Your task to perform on an android device: open app "Spotify: Music and Podcasts" (install if not already installed), go to login, and select forgot password Image 0: 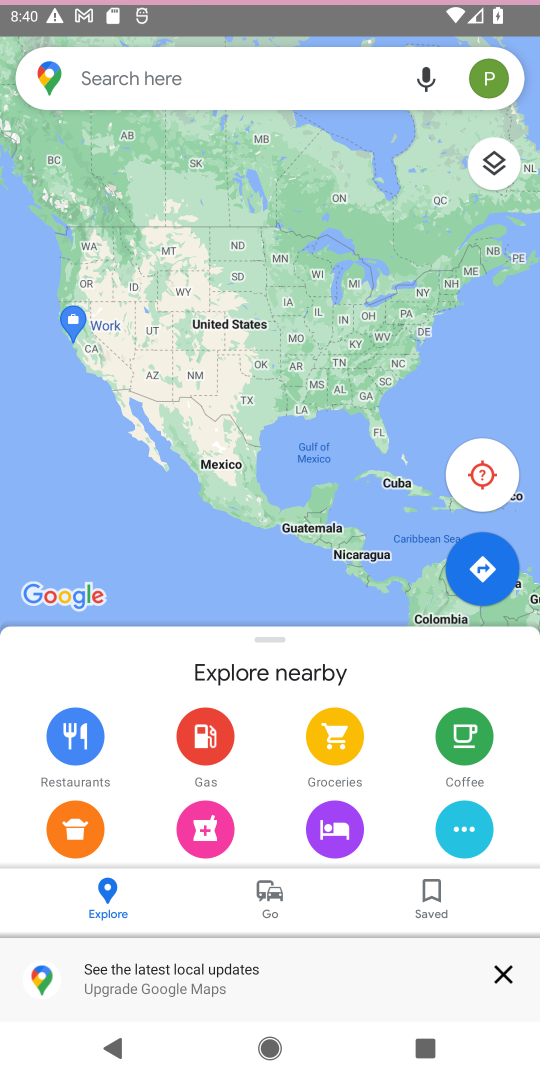
Step 0: press home button
Your task to perform on an android device: open app "Spotify: Music and Podcasts" (install if not already installed), go to login, and select forgot password Image 1: 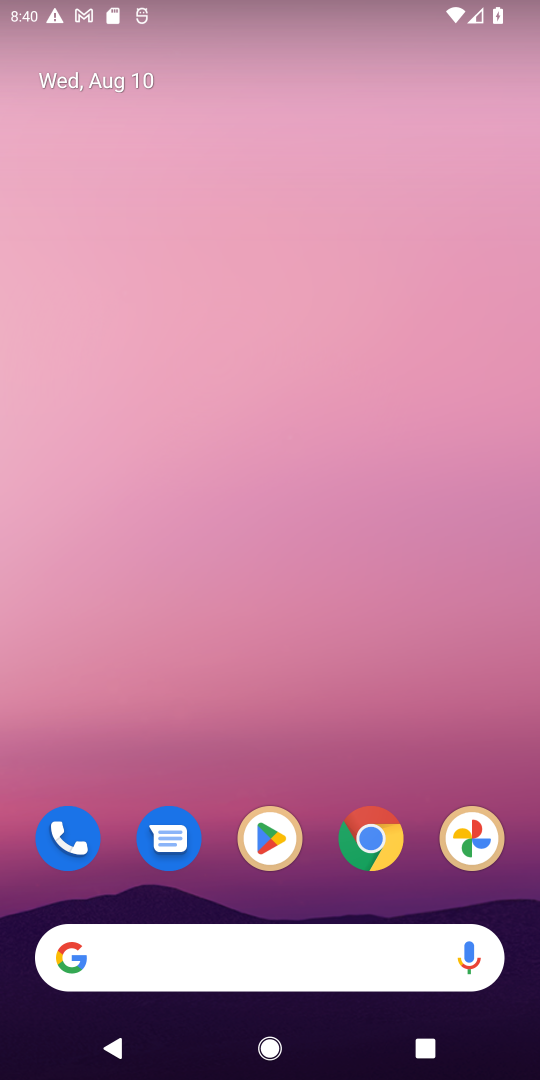
Step 1: click (268, 830)
Your task to perform on an android device: open app "Spotify: Music and Podcasts" (install if not already installed), go to login, and select forgot password Image 2: 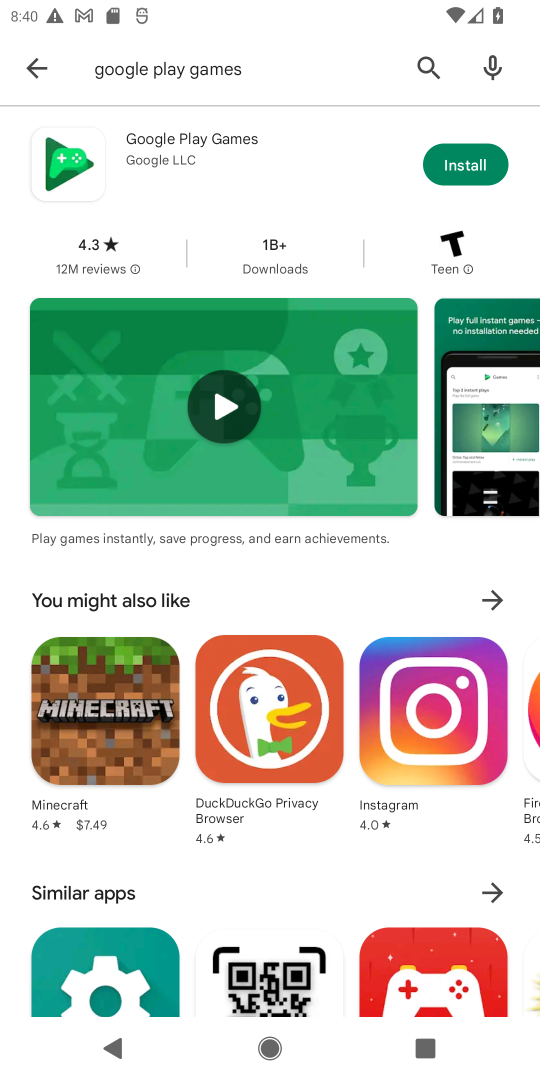
Step 2: click (420, 59)
Your task to perform on an android device: open app "Spotify: Music and Podcasts" (install if not already installed), go to login, and select forgot password Image 3: 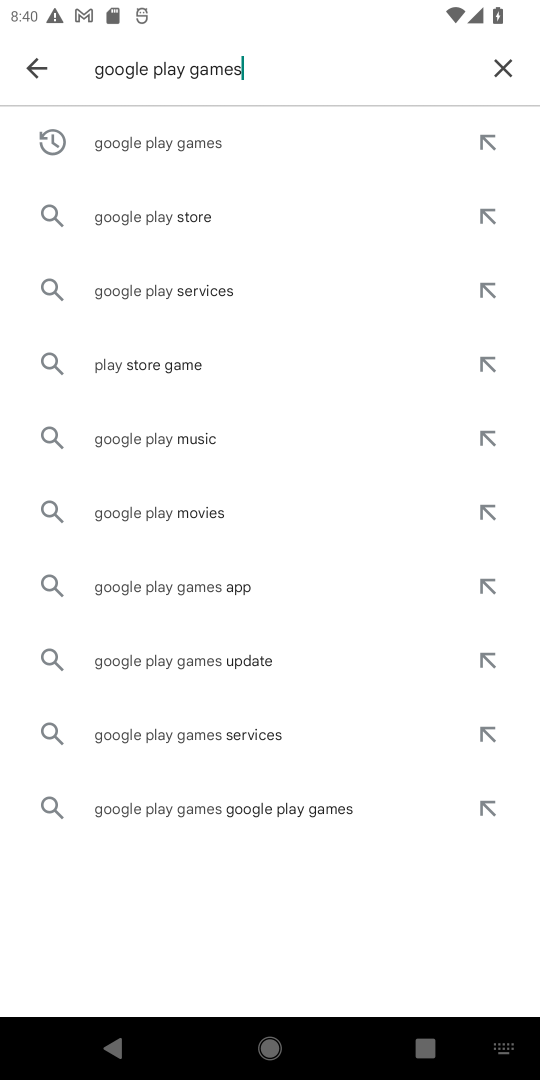
Step 3: click (513, 60)
Your task to perform on an android device: open app "Spotify: Music and Podcasts" (install if not already installed), go to login, and select forgot password Image 4: 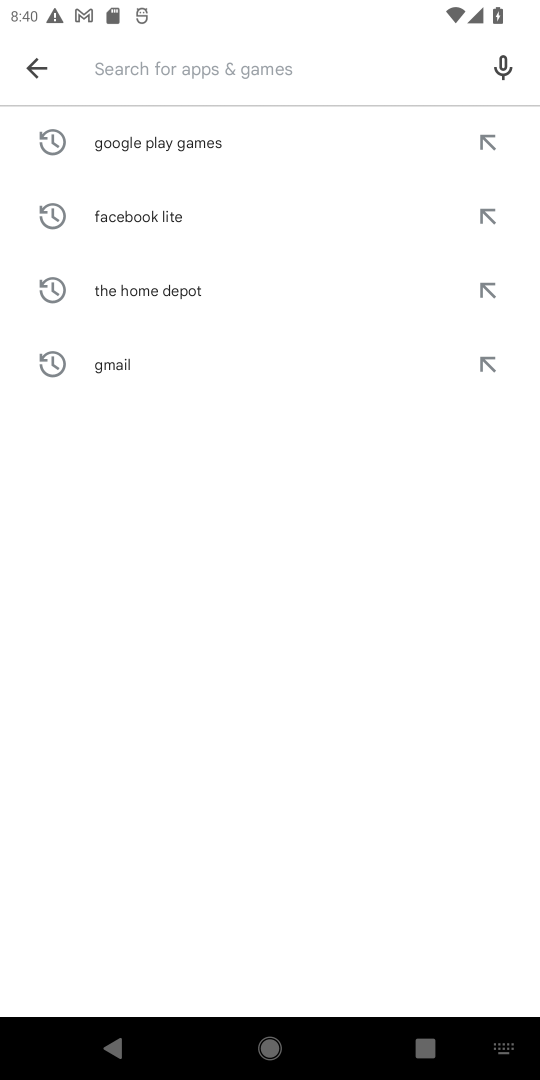
Step 4: type "Spotify: Music and Podcasts"
Your task to perform on an android device: open app "Spotify: Music and Podcasts" (install if not already installed), go to login, and select forgot password Image 5: 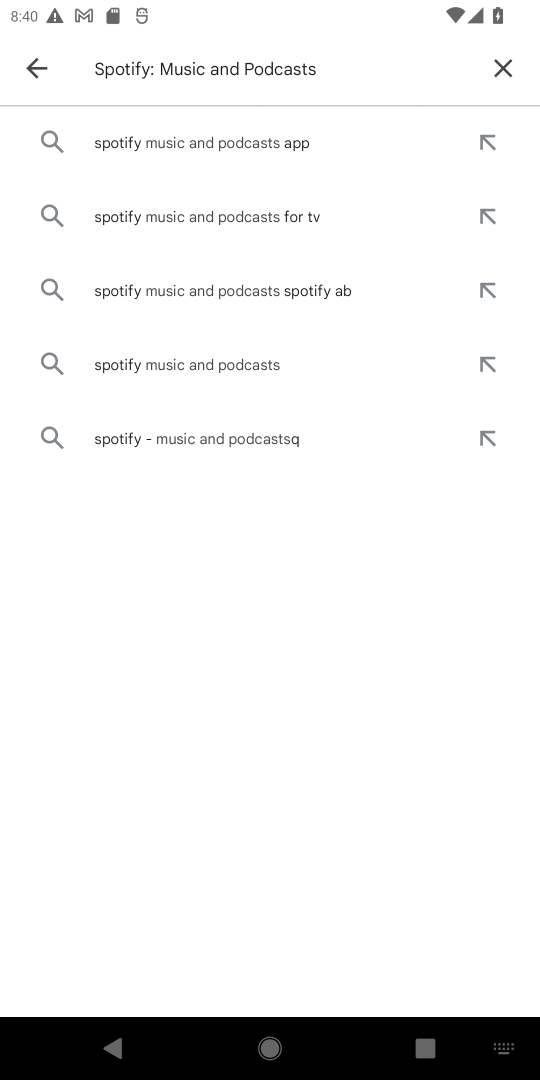
Step 5: click (270, 141)
Your task to perform on an android device: open app "Spotify: Music and Podcasts" (install if not already installed), go to login, and select forgot password Image 6: 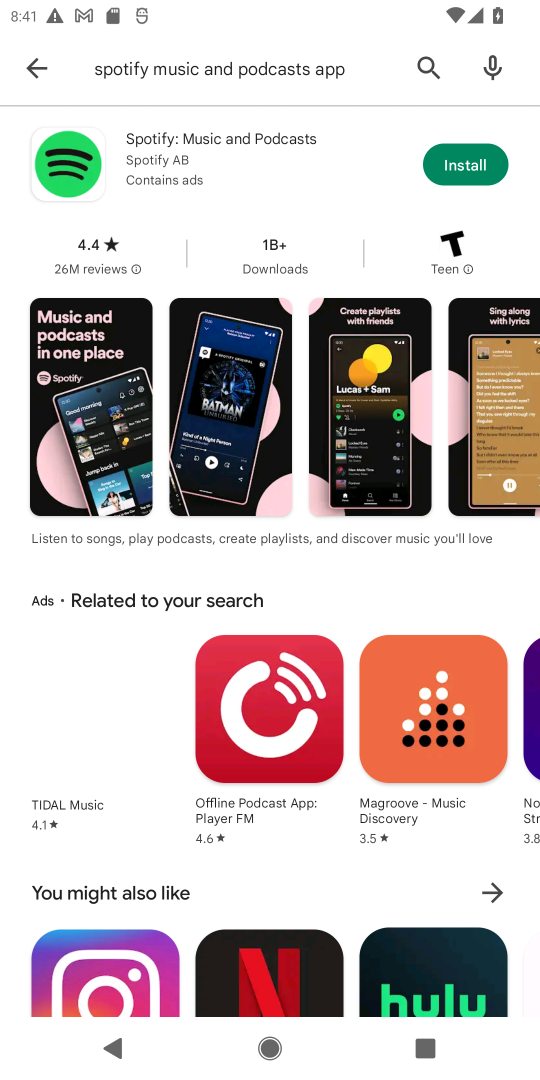
Step 6: click (462, 158)
Your task to perform on an android device: open app "Spotify: Music and Podcasts" (install if not already installed), go to login, and select forgot password Image 7: 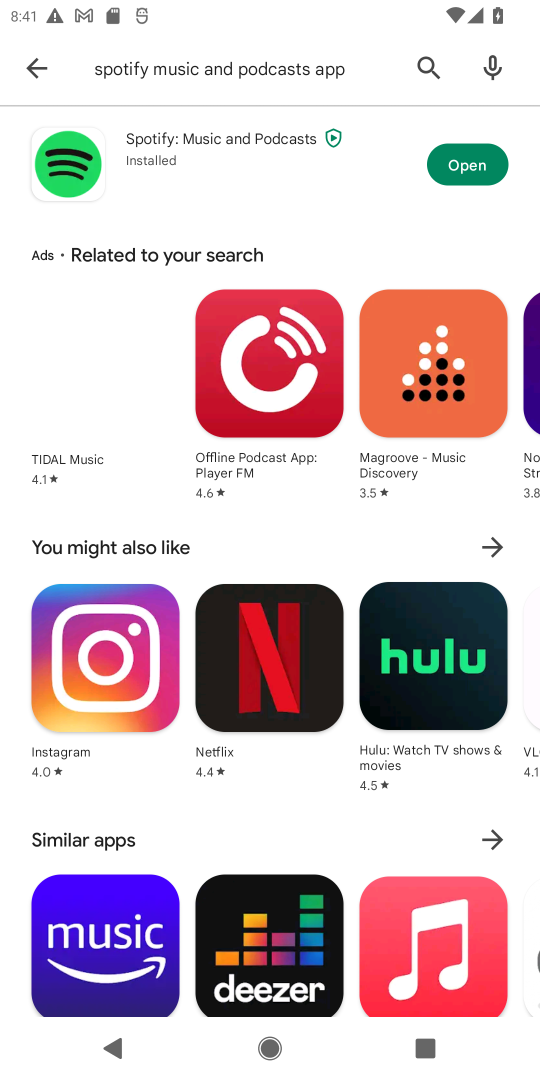
Step 7: click (476, 167)
Your task to perform on an android device: open app "Spotify: Music and Podcasts" (install if not already installed), go to login, and select forgot password Image 8: 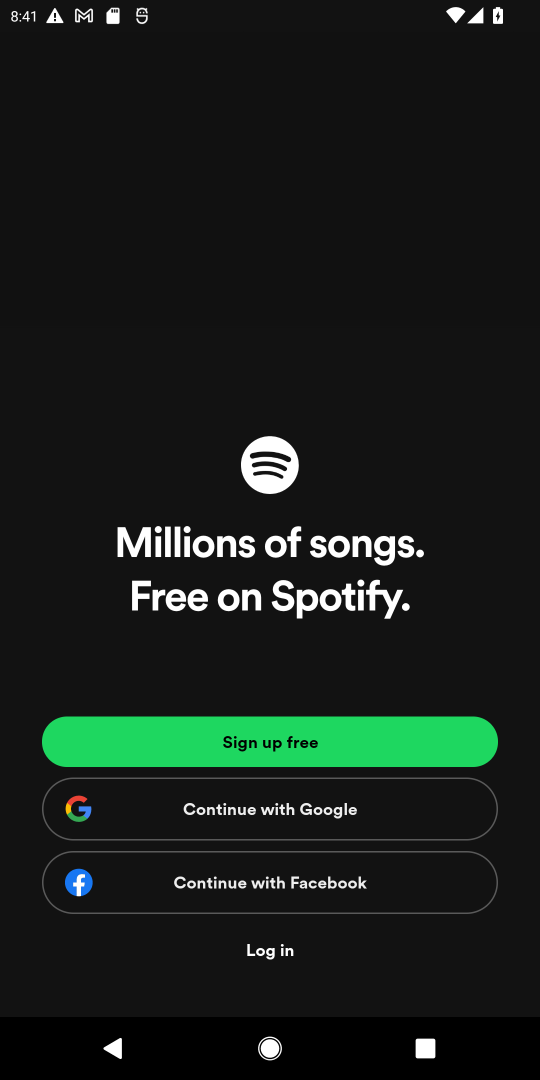
Step 8: click (270, 958)
Your task to perform on an android device: open app "Spotify: Music and Podcasts" (install if not already installed), go to login, and select forgot password Image 9: 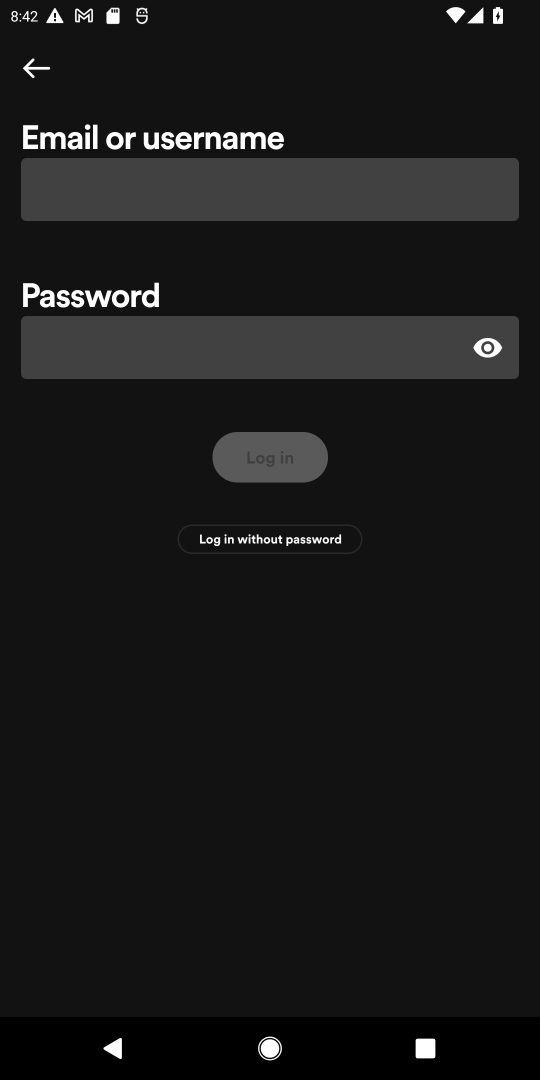
Step 9: task complete